Your task to perform on an android device: manage bookmarks in the chrome app Image 0: 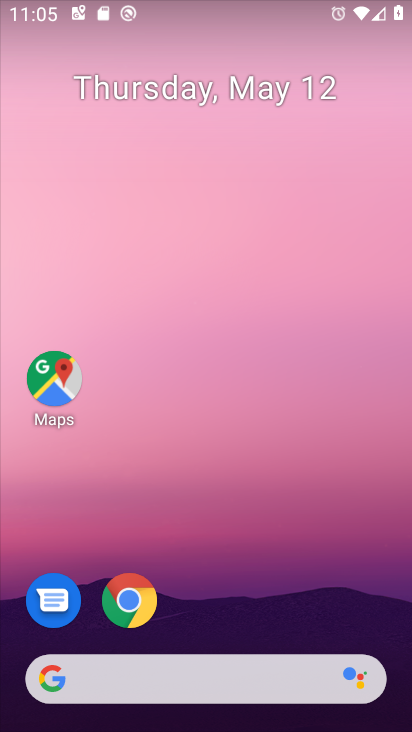
Step 0: click (129, 602)
Your task to perform on an android device: manage bookmarks in the chrome app Image 1: 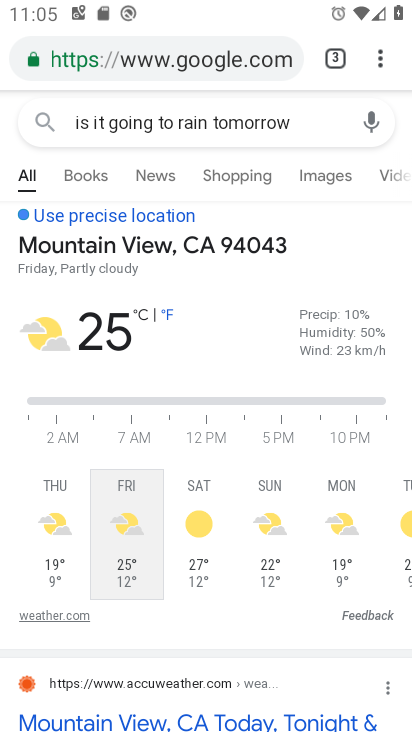
Step 1: click (379, 59)
Your task to perform on an android device: manage bookmarks in the chrome app Image 2: 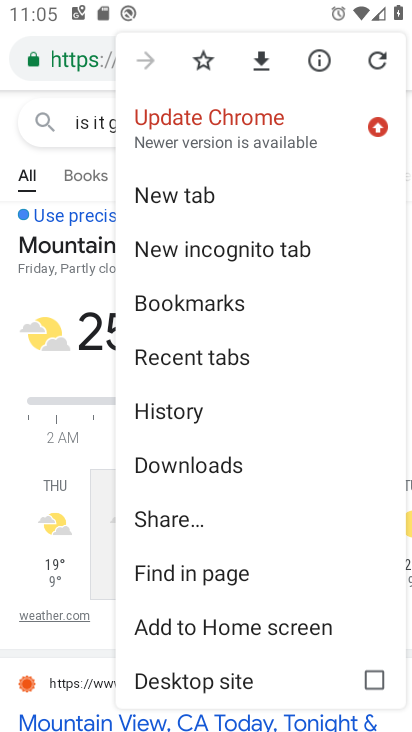
Step 2: click (189, 299)
Your task to perform on an android device: manage bookmarks in the chrome app Image 3: 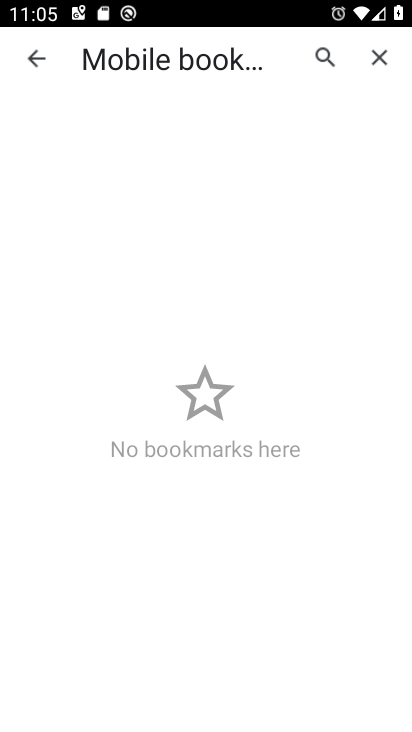
Step 3: task complete